Your task to perform on an android device: Is it going to rain this weekend? Image 0: 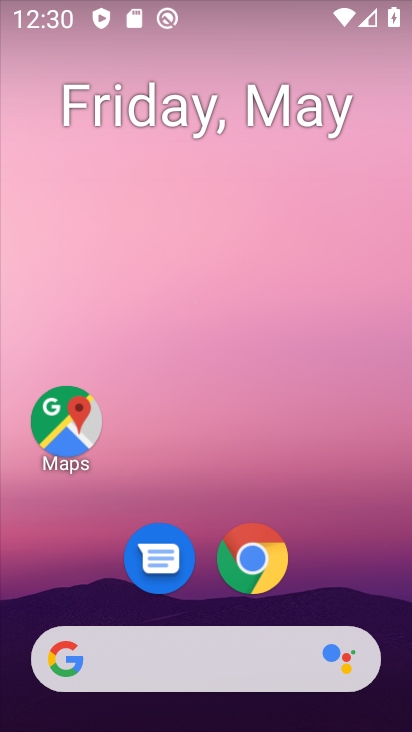
Step 0: click (265, 555)
Your task to perform on an android device: Is it going to rain this weekend? Image 1: 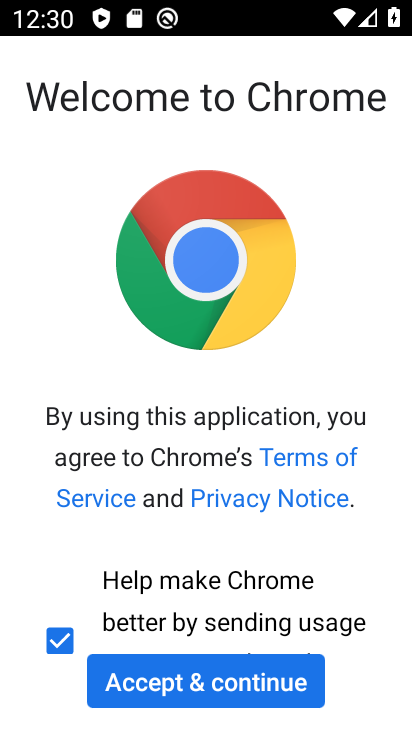
Step 1: click (164, 692)
Your task to perform on an android device: Is it going to rain this weekend? Image 2: 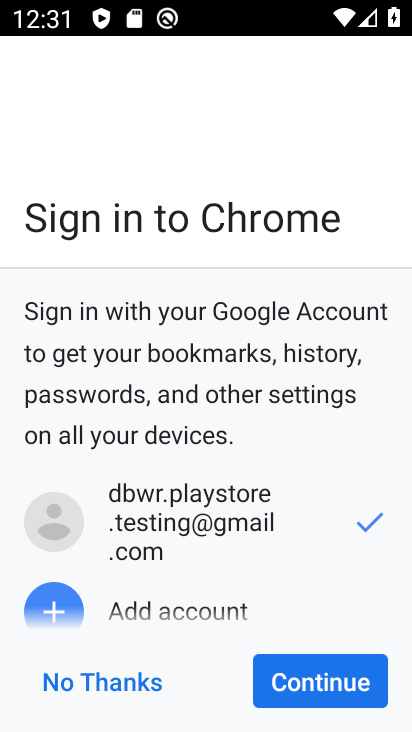
Step 2: click (338, 682)
Your task to perform on an android device: Is it going to rain this weekend? Image 3: 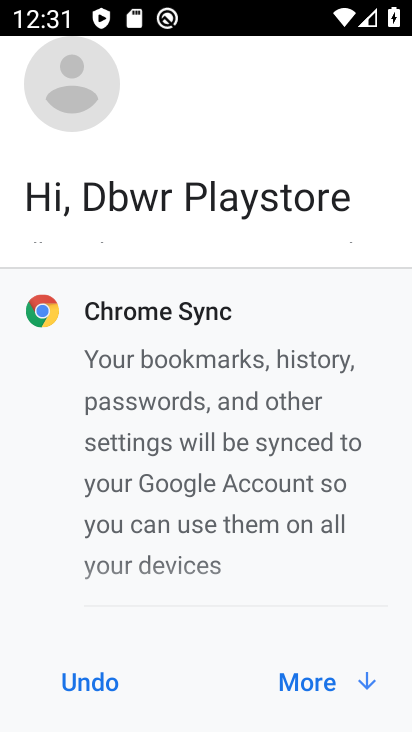
Step 3: click (338, 682)
Your task to perform on an android device: Is it going to rain this weekend? Image 4: 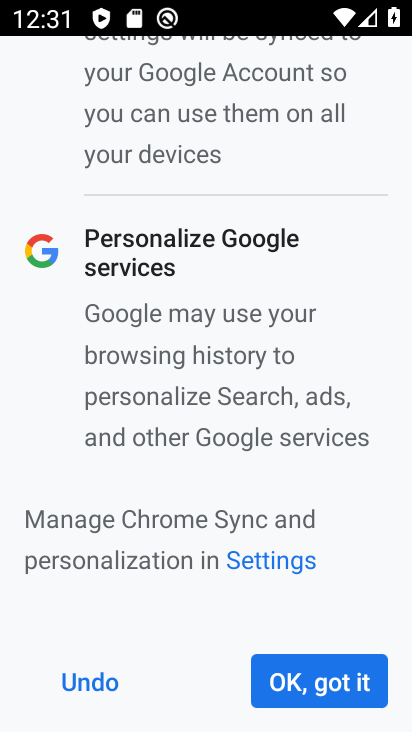
Step 4: click (338, 682)
Your task to perform on an android device: Is it going to rain this weekend? Image 5: 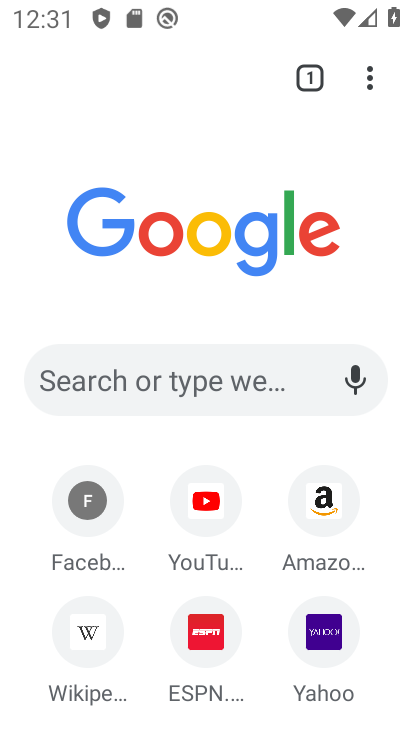
Step 5: click (218, 393)
Your task to perform on an android device: Is it going to rain this weekend? Image 6: 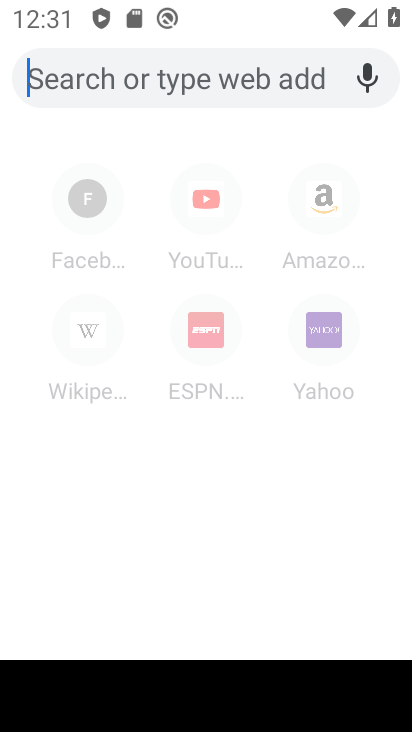
Step 6: type "Is it going to rain this weekend?"
Your task to perform on an android device: Is it going to rain this weekend? Image 7: 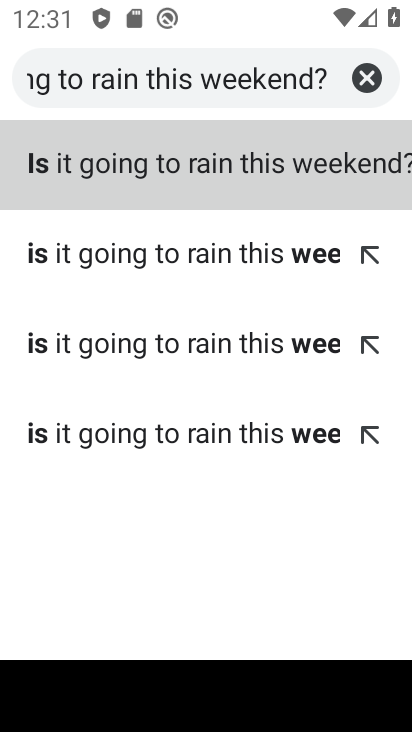
Step 7: click (200, 166)
Your task to perform on an android device: Is it going to rain this weekend? Image 8: 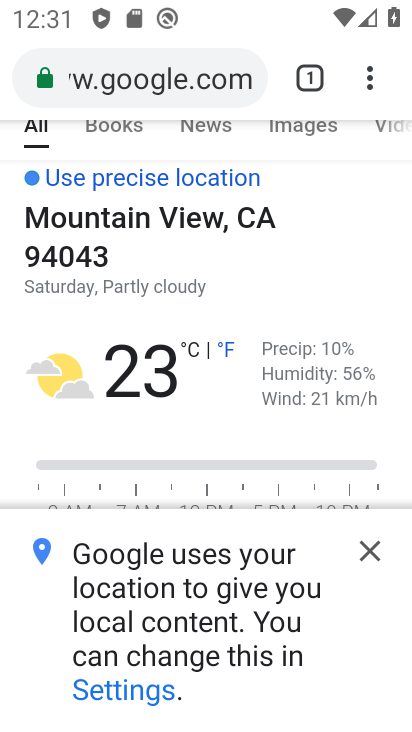
Step 8: click (368, 550)
Your task to perform on an android device: Is it going to rain this weekend? Image 9: 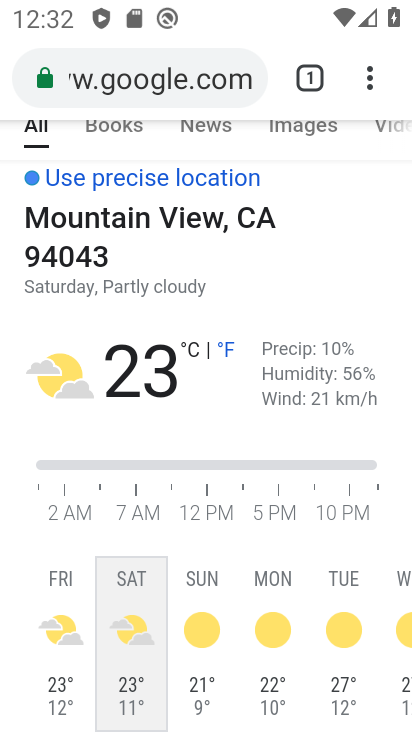
Step 9: task complete